Your task to perform on an android device: change notifications settings Image 0: 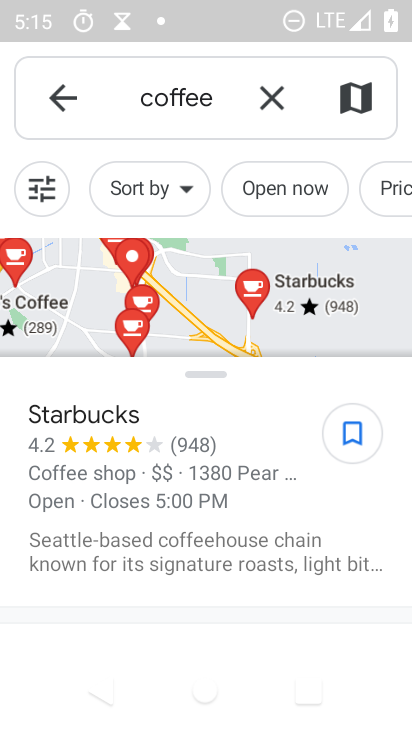
Step 0: press home button
Your task to perform on an android device: change notifications settings Image 1: 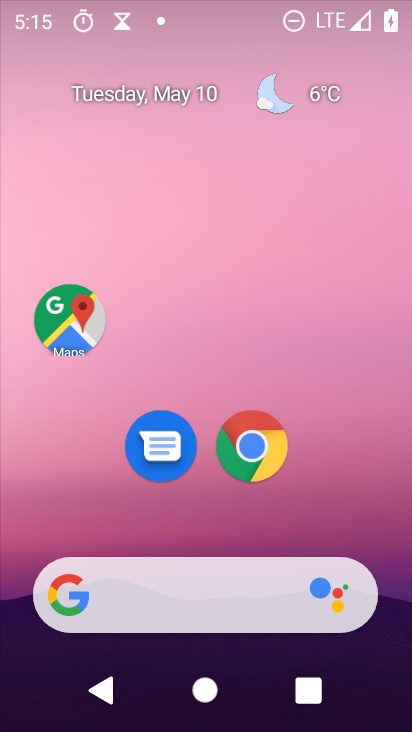
Step 1: drag from (252, 531) to (199, 113)
Your task to perform on an android device: change notifications settings Image 2: 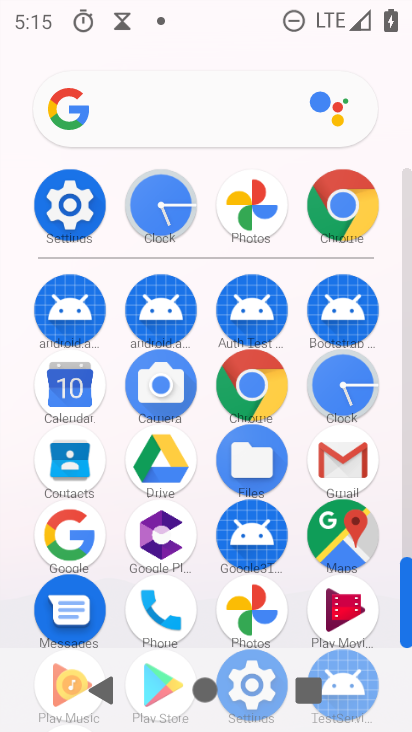
Step 2: click (81, 209)
Your task to perform on an android device: change notifications settings Image 3: 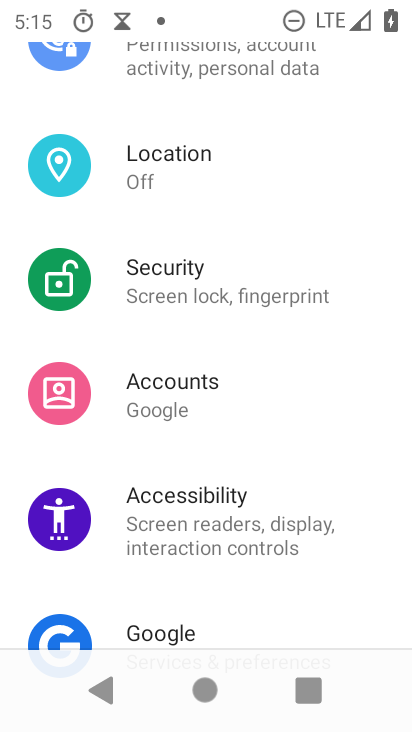
Step 3: drag from (249, 534) to (221, 664)
Your task to perform on an android device: change notifications settings Image 4: 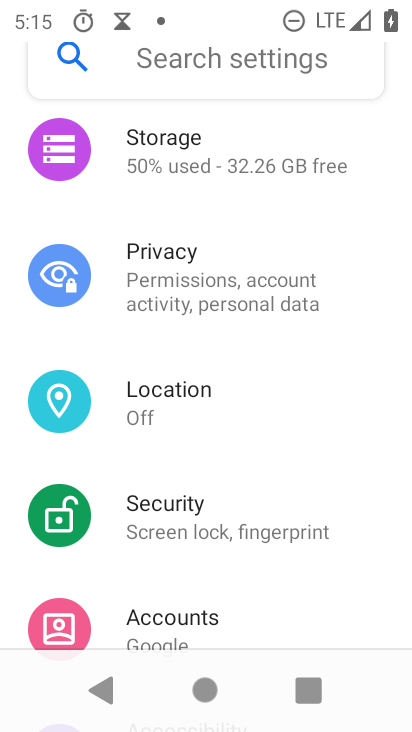
Step 4: drag from (255, 219) to (227, 727)
Your task to perform on an android device: change notifications settings Image 5: 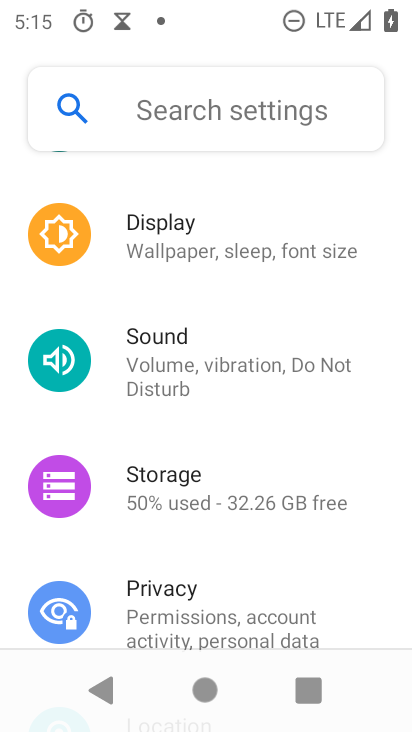
Step 5: drag from (238, 220) to (236, 685)
Your task to perform on an android device: change notifications settings Image 6: 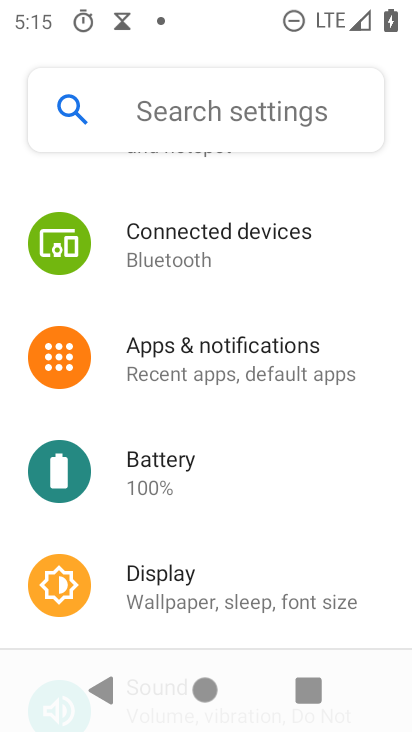
Step 6: click (191, 372)
Your task to perform on an android device: change notifications settings Image 7: 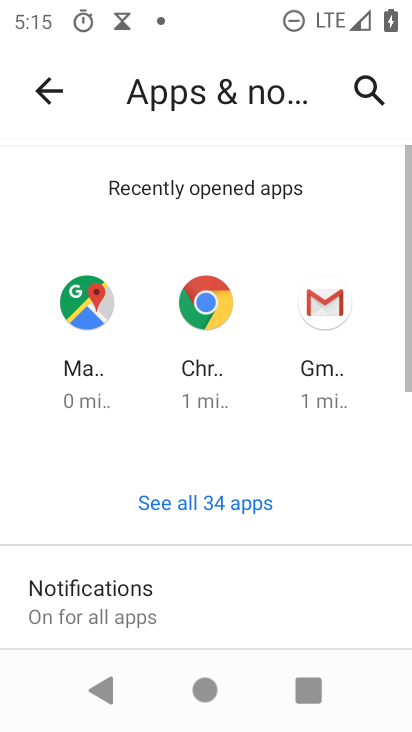
Step 7: drag from (250, 572) to (253, 214)
Your task to perform on an android device: change notifications settings Image 8: 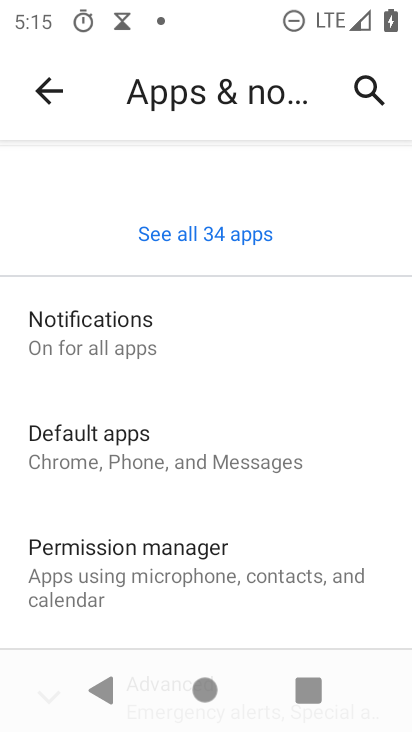
Step 8: click (172, 327)
Your task to perform on an android device: change notifications settings Image 9: 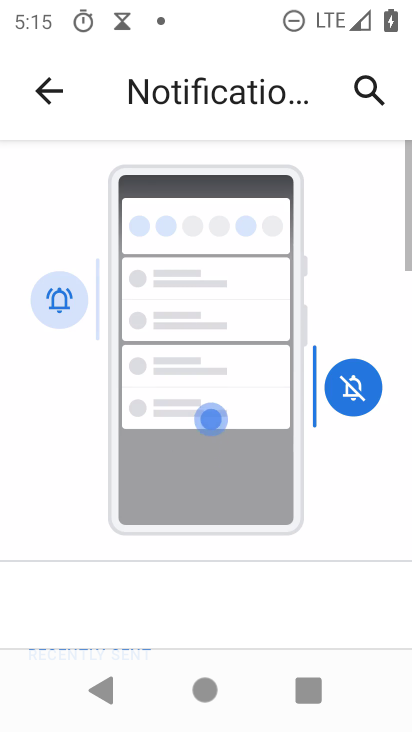
Step 9: drag from (212, 523) to (248, 199)
Your task to perform on an android device: change notifications settings Image 10: 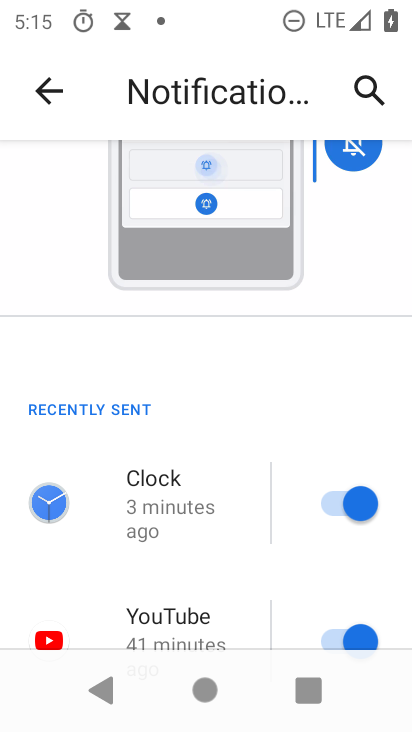
Step 10: drag from (241, 543) to (261, 304)
Your task to perform on an android device: change notifications settings Image 11: 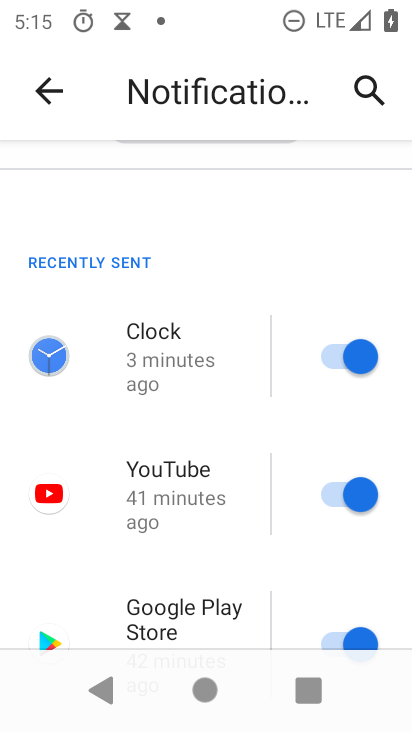
Step 11: click (350, 353)
Your task to perform on an android device: change notifications settings Image 12: 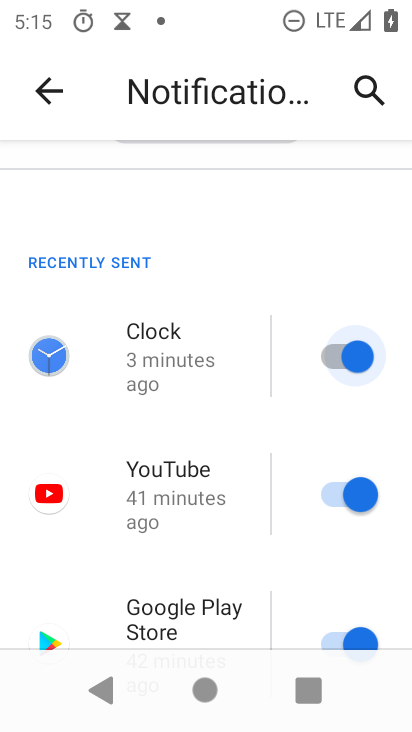
Step 12: click (359, 489)
Your task to perform on an android device: change notifications settings Image 13: 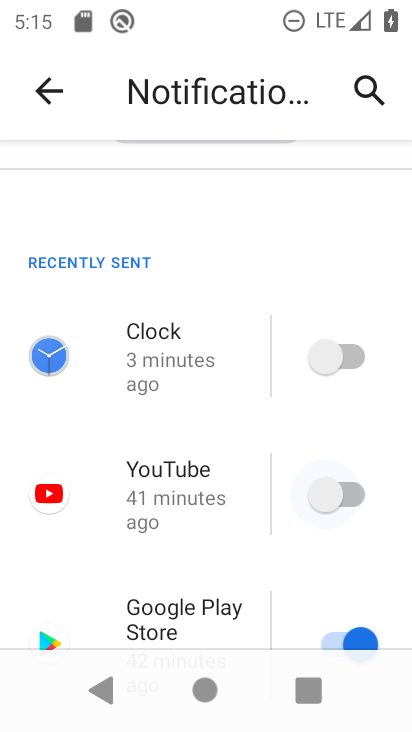
Step 13: click (357, 639)
Your task to perform on an android device: change notifications settings Image 14: 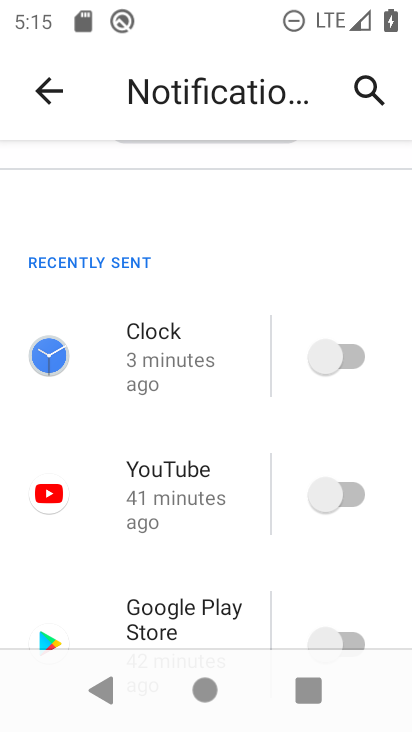
Step 14: task complete